Your task to perform on an android device: turn off priority inbox in the gmail app Image 0: 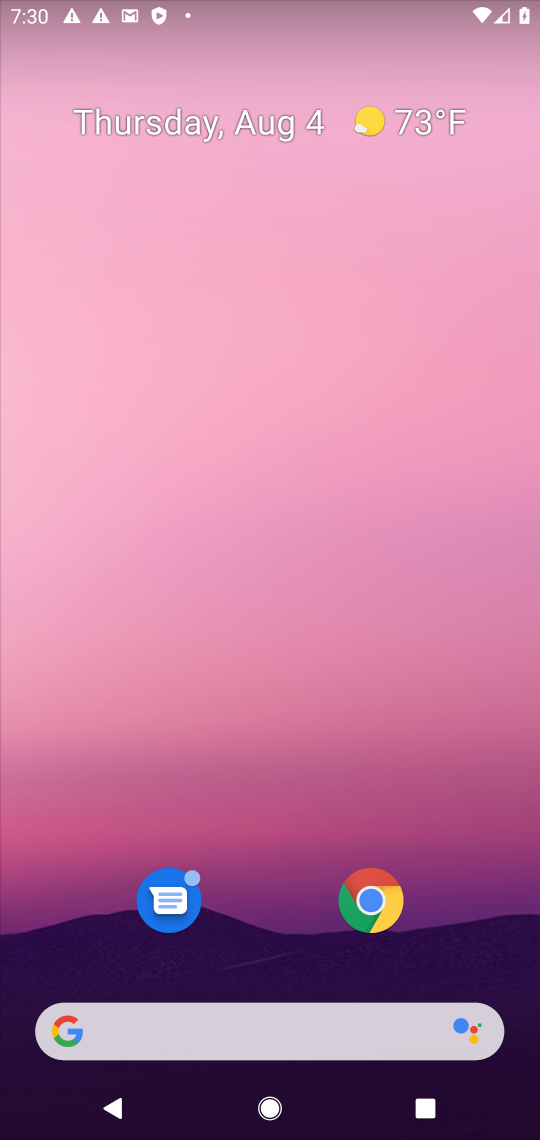
Step 0: press home button
Your task to perform on an android device: turn off priority inbox in the gmail app Image 1: 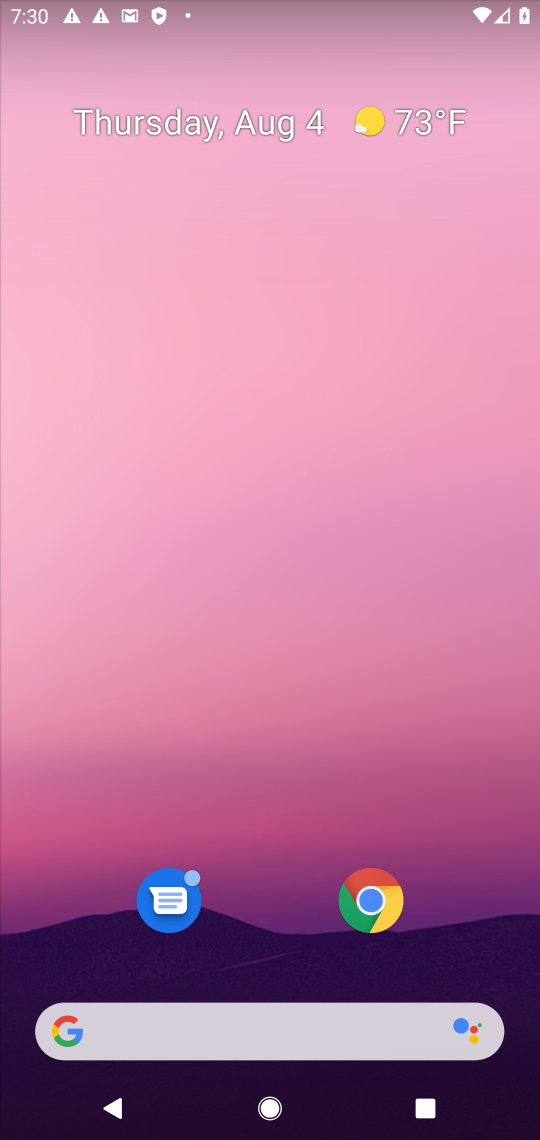
Step 1: drag from (221, 1044) to (521, 216)
Your task to perform on an android device: turn off priority inbox in the gmail app Image 2: 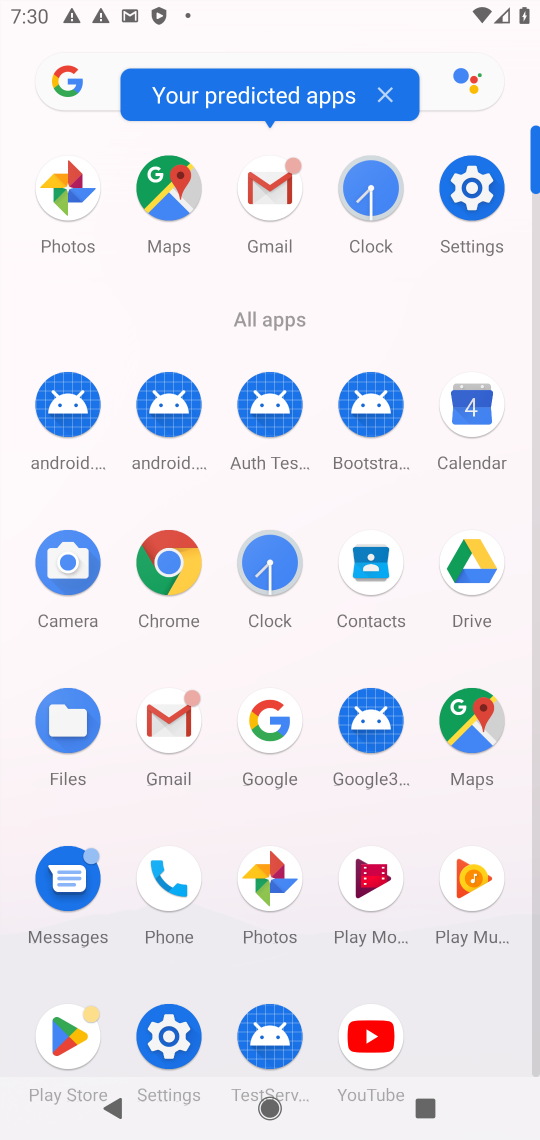
Step 2: click (274, 196)
Your task to perform on an android device: turn off priority inbox in the gmail app Image 3: 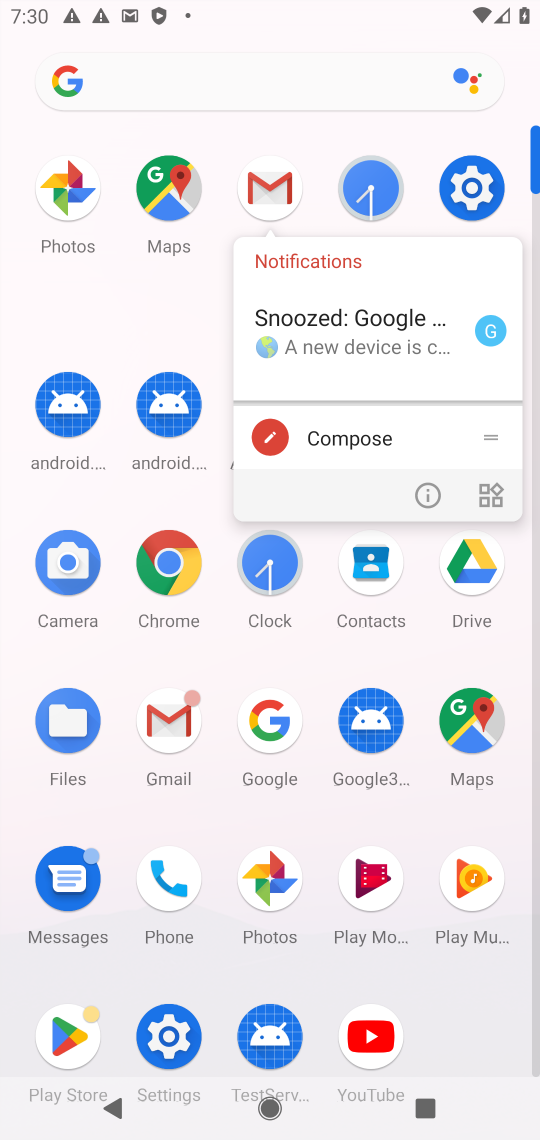
Step 3: click (274, 199)
Your task to perform on an android device: turn off priority inbox in the gmail app Image 4: 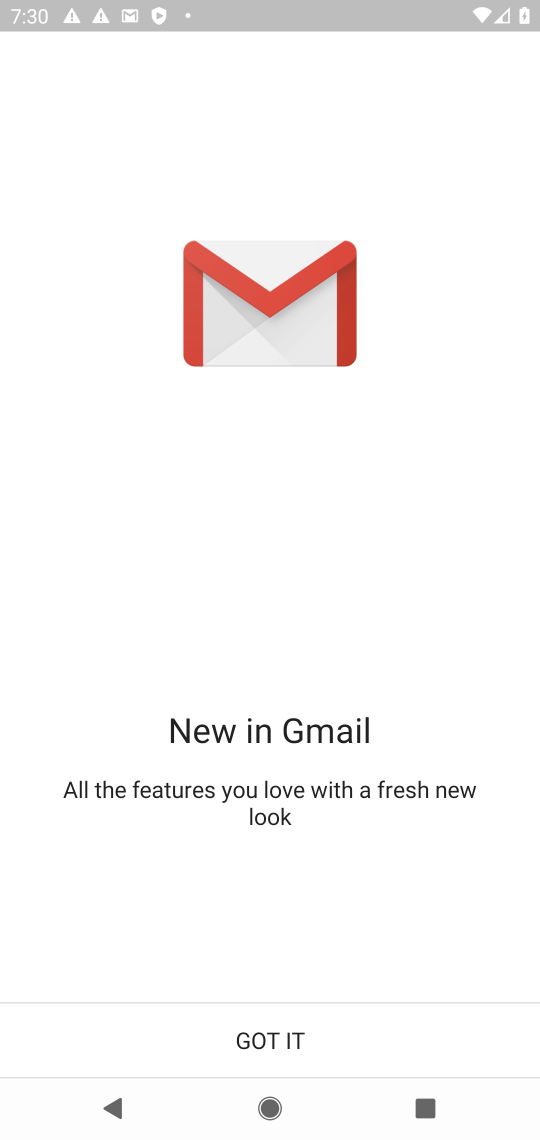
Step 4: click (299, 1048)
Your task to perform on an android device: turn off priority inbox in the gmail app Image 5: 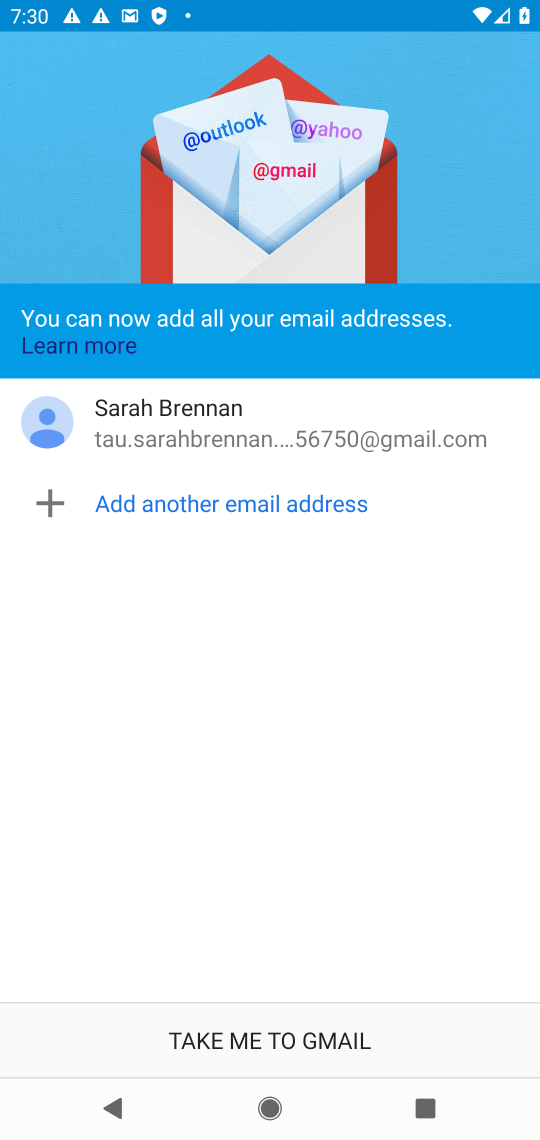
Step 5: click (314, 1036)
Your task to perform on an android device: turn off priority inbox in the gmail app Image 6: 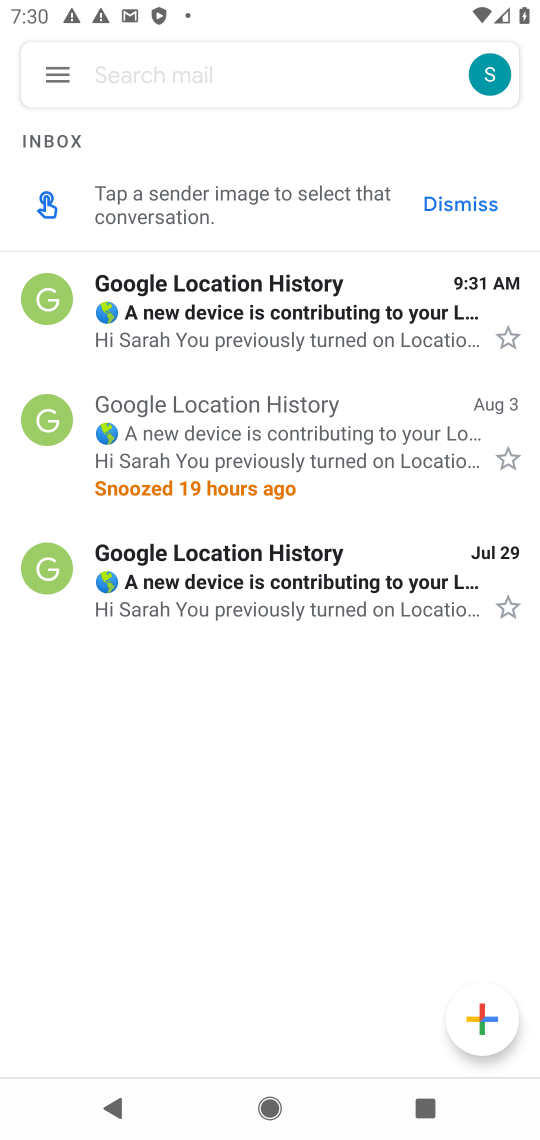
Step 6: click (58, 79)
Your task to perform on an android device: turn off priority inbox in the gmail app Image 7: 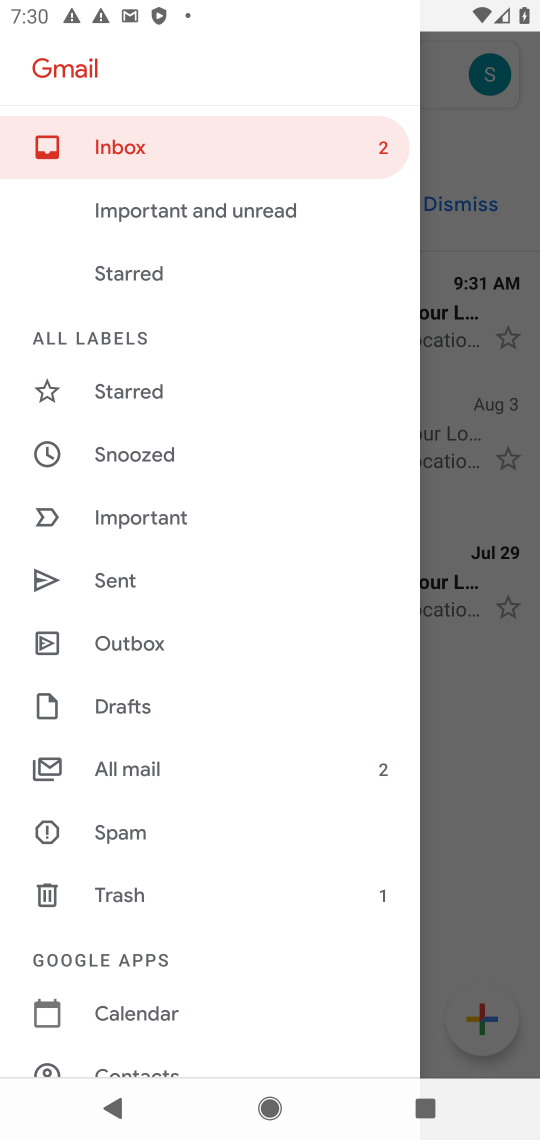
Step 7: drag from (231, 958) to (358, 296)
Your task to perform on an android device: turn off priority inbox in the gmail app Image 8: 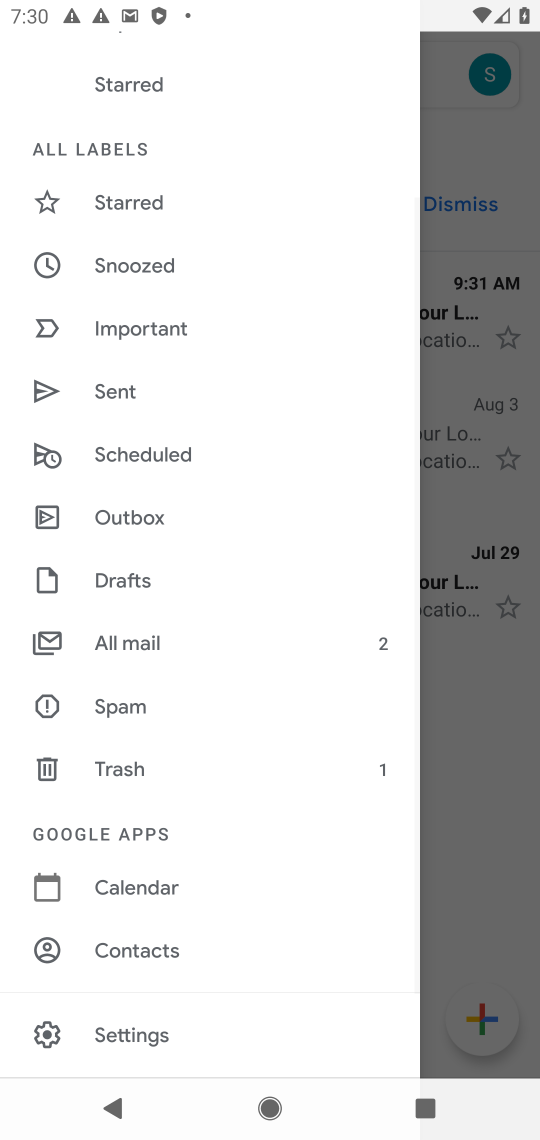
Step 8: click (141, 1032)
Your task to perform on an android device: turn off priority inbox in the gmail app Image 9: 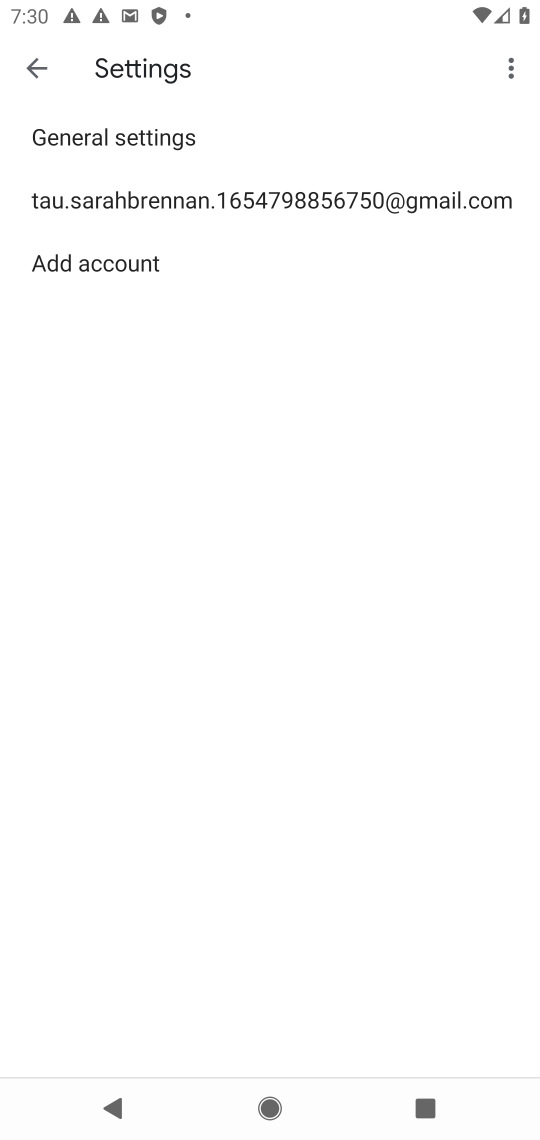
Step 9: click (236, 190)
Your task to perform on an android device: turn off priority inbox in the gmail app Image 10: 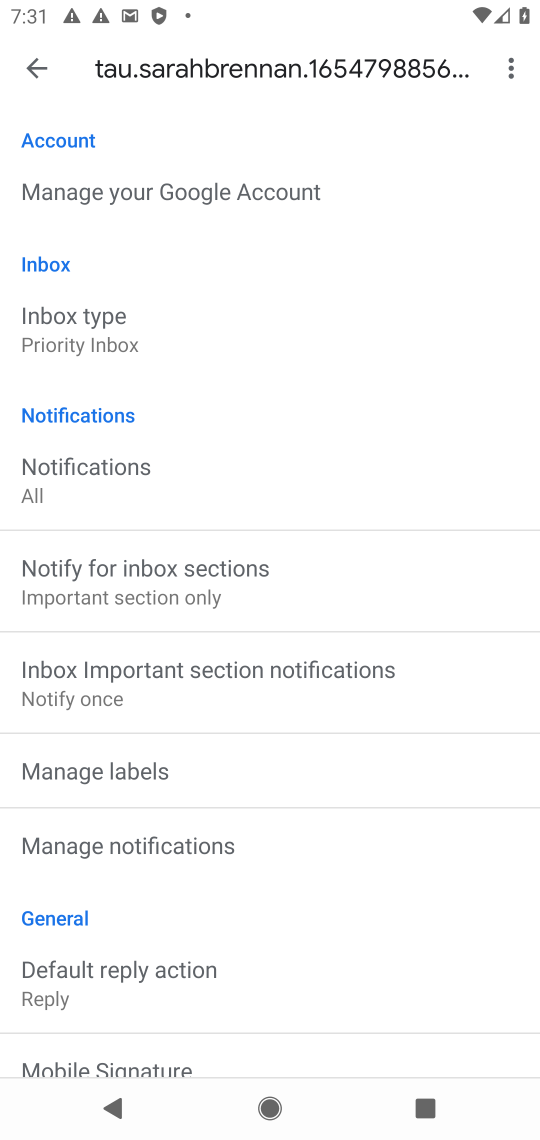
Step 10: click (91, 332)
Your task to perform on an android device: turn off priority inbox in the gmail app Image 11: 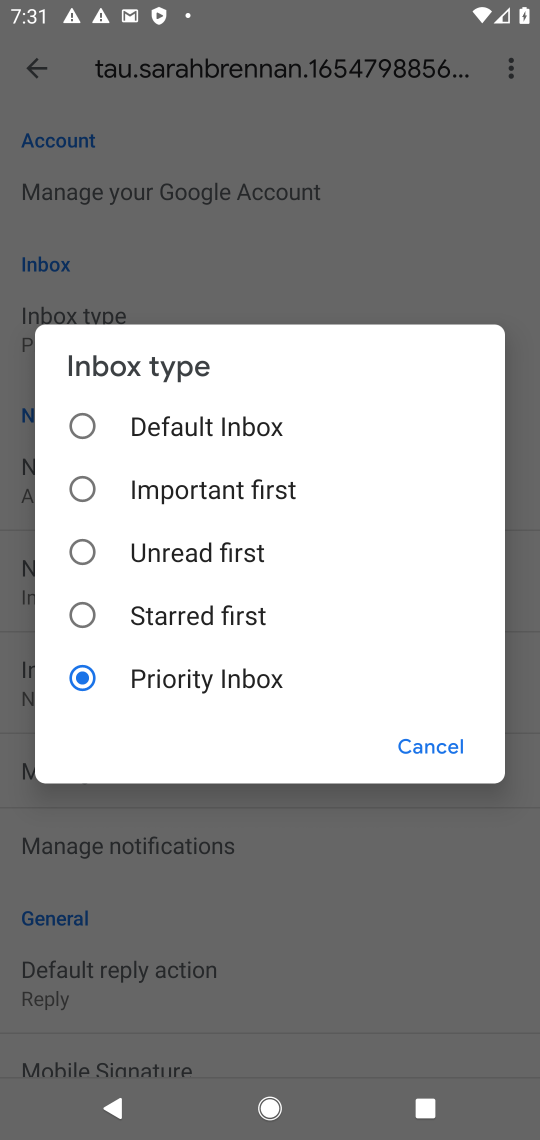
Step 11: click (88, 428)
Your task to perform on an android device: turn off priority inbox in the gmail app Image 12: 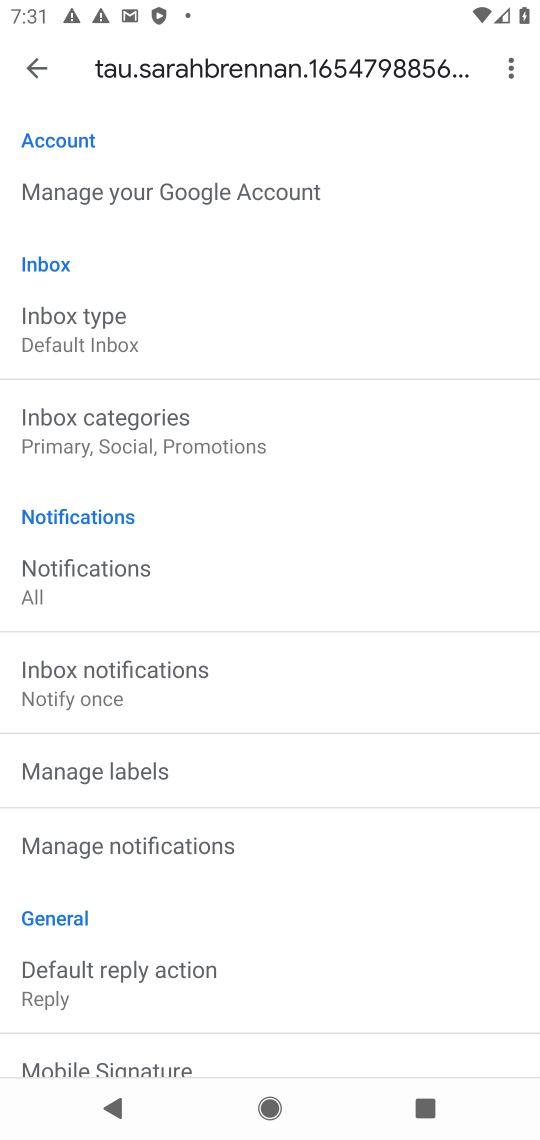
Step 12: task complete